Your task to perform on an android device: show emergency info Image 0: 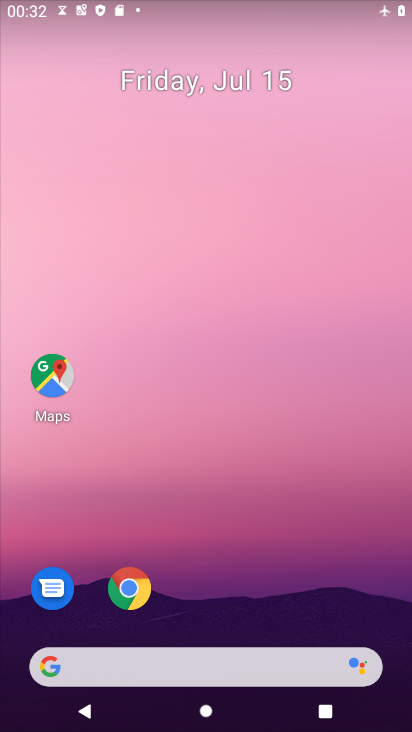
Step 0: drag from (232, 610) to (273, 6)
Your task to perform on an android device: show emergency info Image 1: 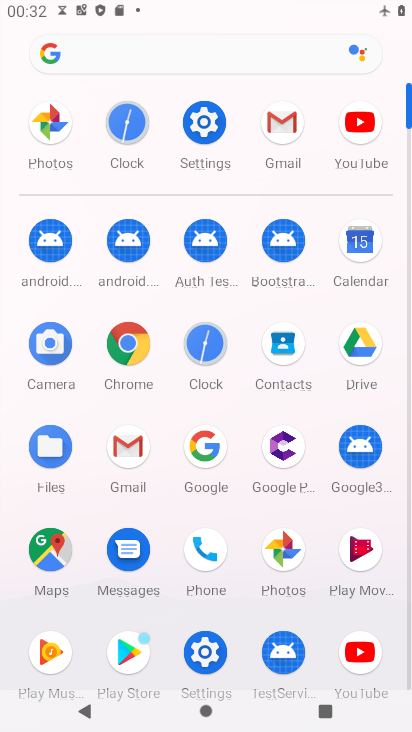
Step 1: click (205, 120)
Your task to perform on an android device: show emergency info Image 2: 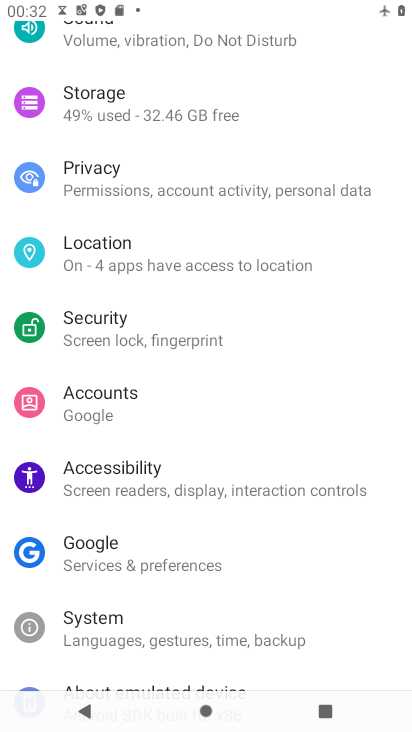
Step 2: drag from (206, 619) to (331, 16)
Your task to perform on an android device: show emergency info Image 3: 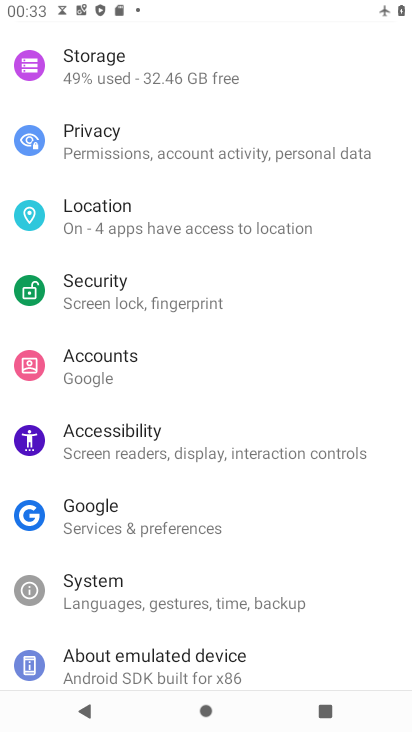
Step 3: click (180, 657)
Your task to perform on an android device: show emergency info Image 4: 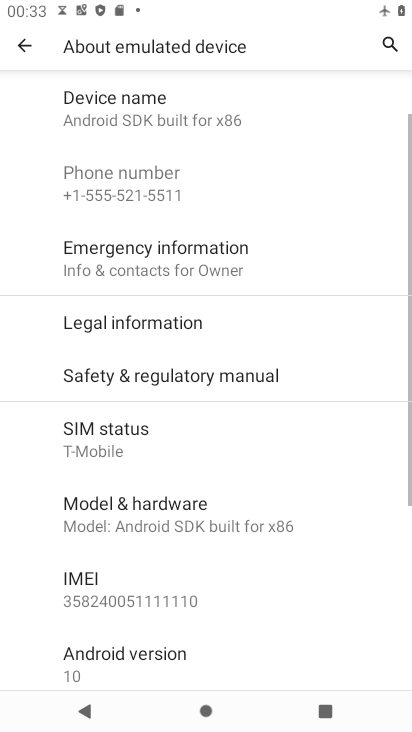
Step 4: click (174, 258)
Your task to perform on an android device: show emergency info Image 5: 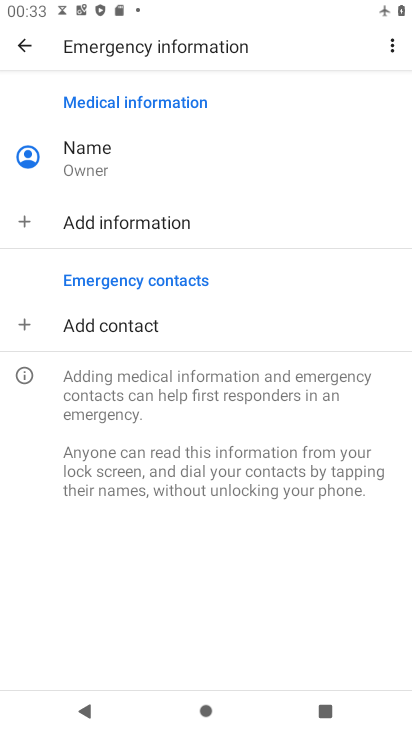
Step 5: task complete